Your task to perform on an android device: turn off notifications in google photos Image 0: 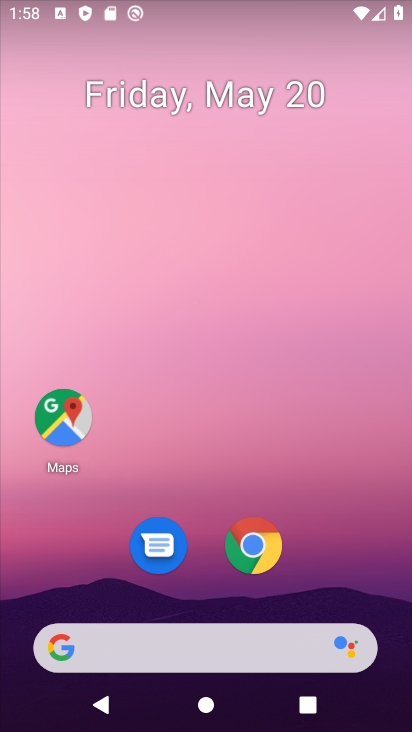
Step 0: drag from (265, 547) to (336, 58)
Your task to perform on an android device: turn off notifications in google photos Image 1: 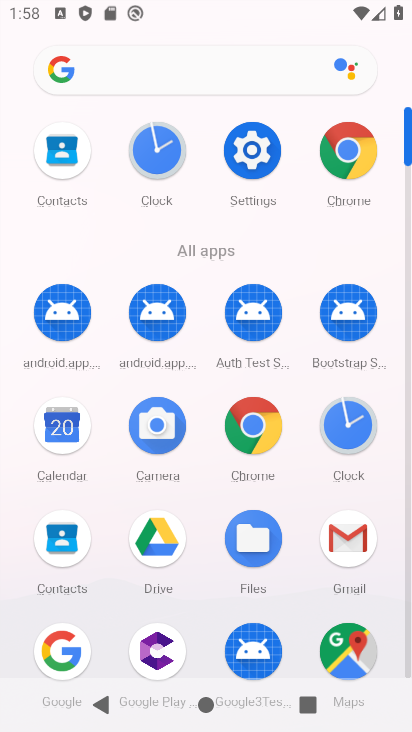
Step 1: drag from (204, 625) to (205, 199)
Your task to perform on an android device: turn off notifications in google photos Image 2: 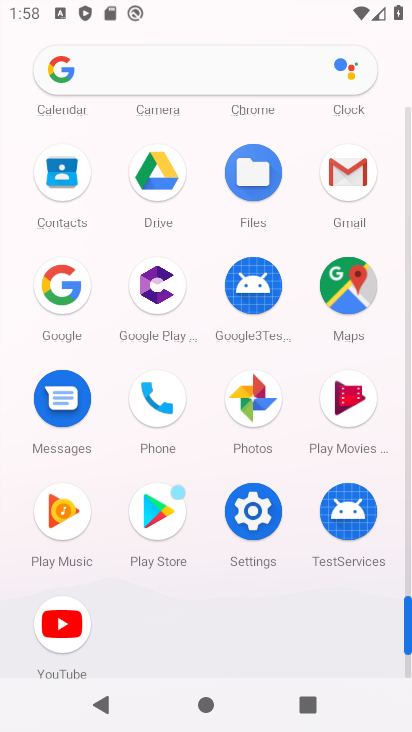
Step 2: click (260, 396)
Your task to perform on an android device: turn off notifications in google photos Image 3: 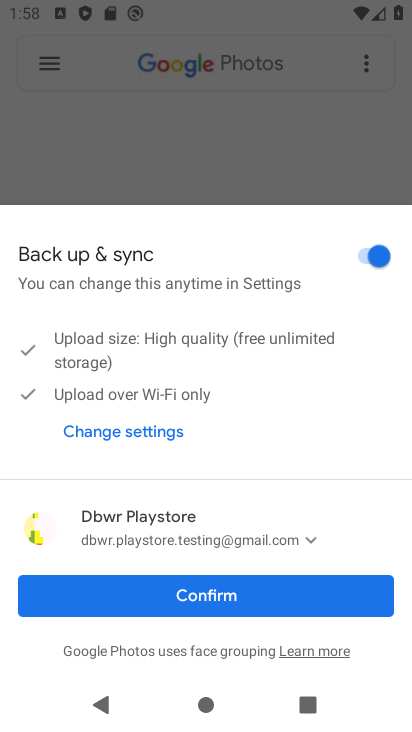
Step 3: click (203, 596)
Your task to perform on an android device: turn off notifications in google photos Image 4: 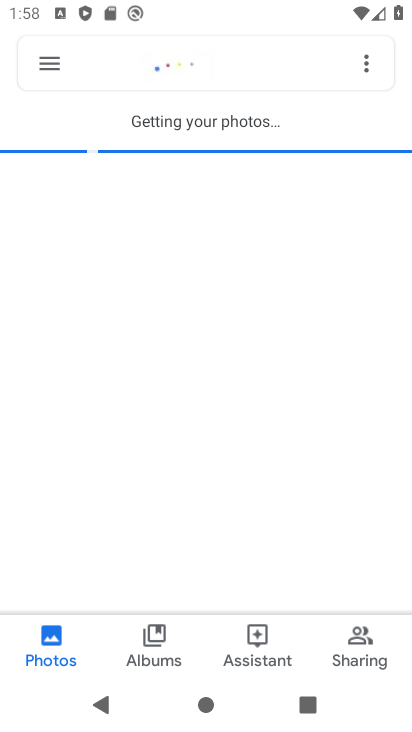
Step 4: click (44, 57)
Your task to perform on an android device: turn off notifications in google photos Image 5: 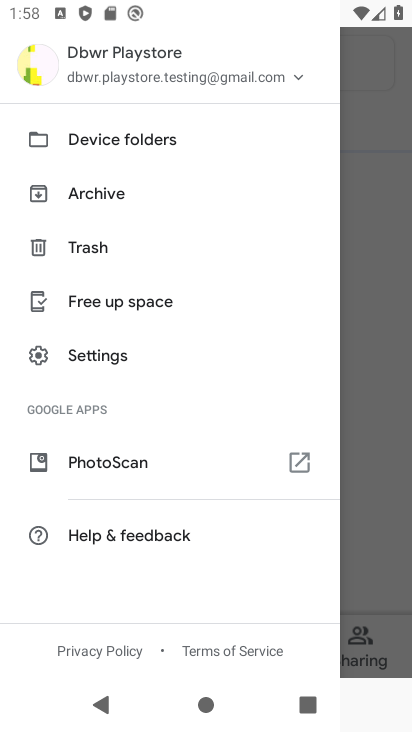
Step 5: click (130, 355)
Your task to perform on an android device: turn off notifications in google photos Image 6: 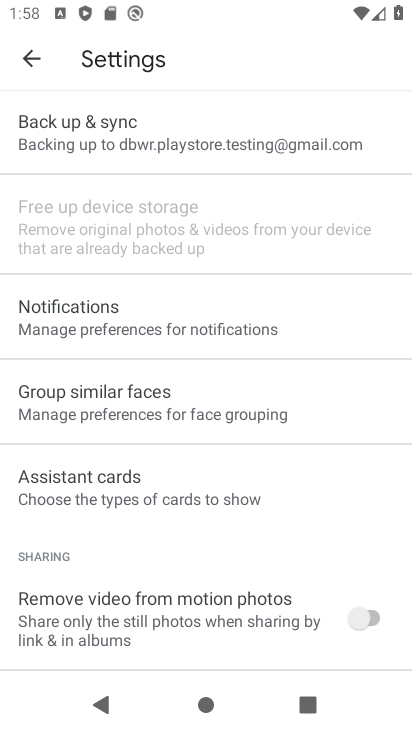
Step 6: click (125, 324)
Your task to perform on an android device: turn off notifications in google photos Image 7: 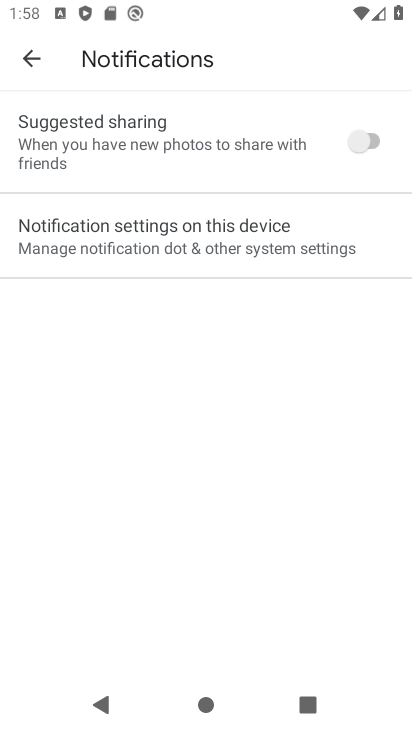
Step 7: click (142, 231)
Your task to perform on an android device: turn off notifications in google photos Image 8: 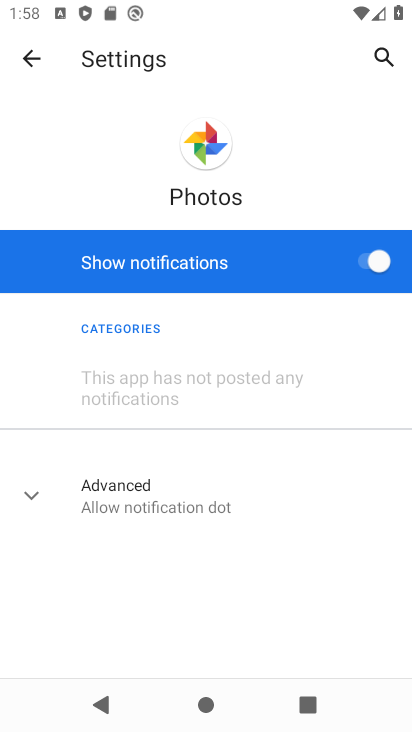
Step 8: task complete